Your task to perform on an android device: Add rayovac triple a to the cart on costco, then select checkout. Image 0: 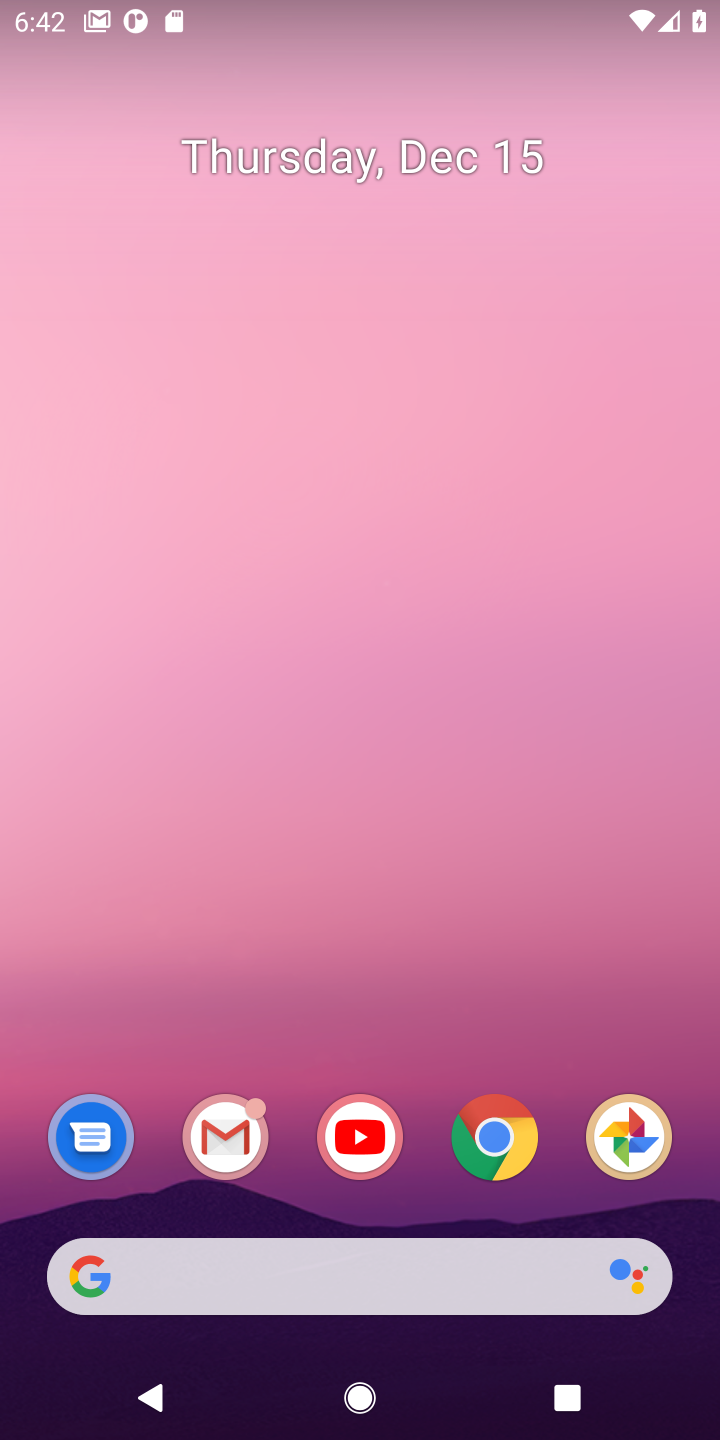
Step 0: drag from (369, 1159) to (369, 661)
Your task to perform on an android device: Add rayovac triple a to the cart on costco, then select checkout. Image 1: 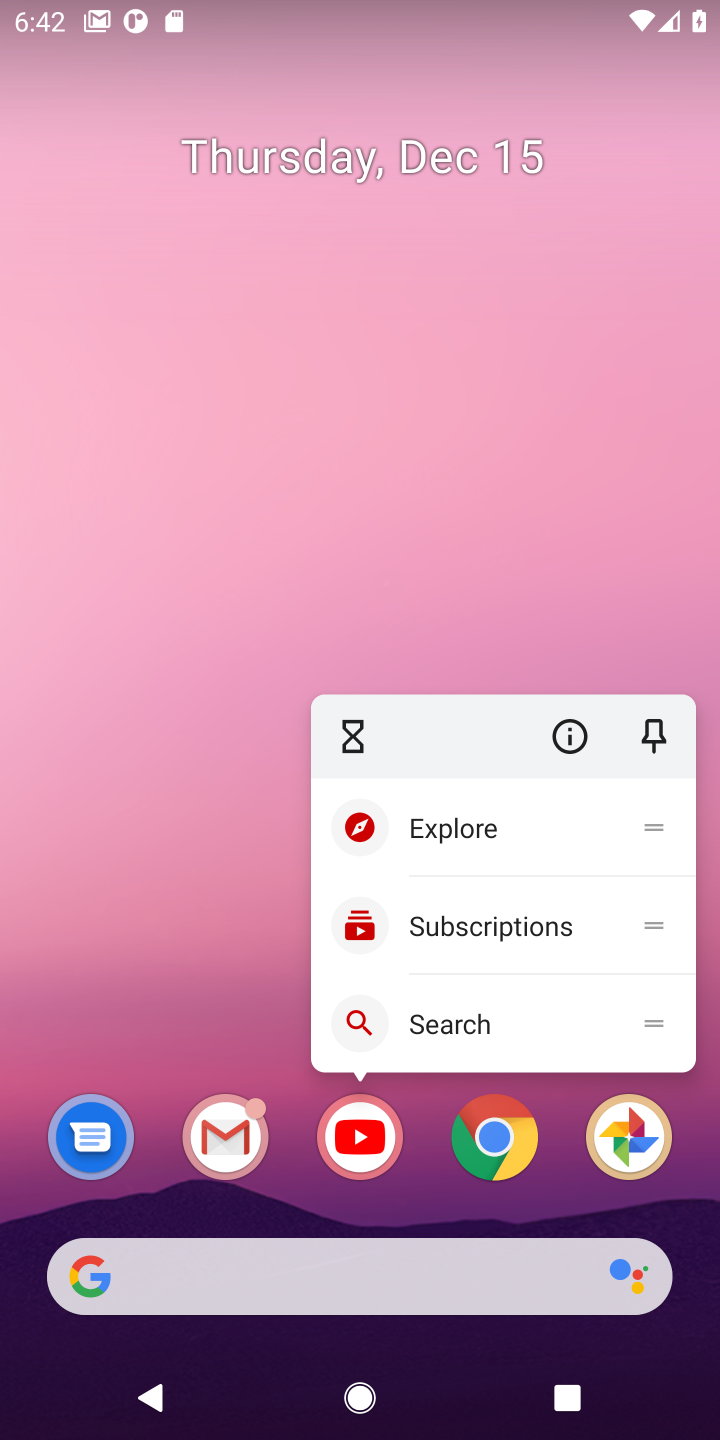
Step 1: click (125, 1013)
Your task to perform on an android device: Add rayovac triple a to the cart on costco, then select checkout. Image 2: 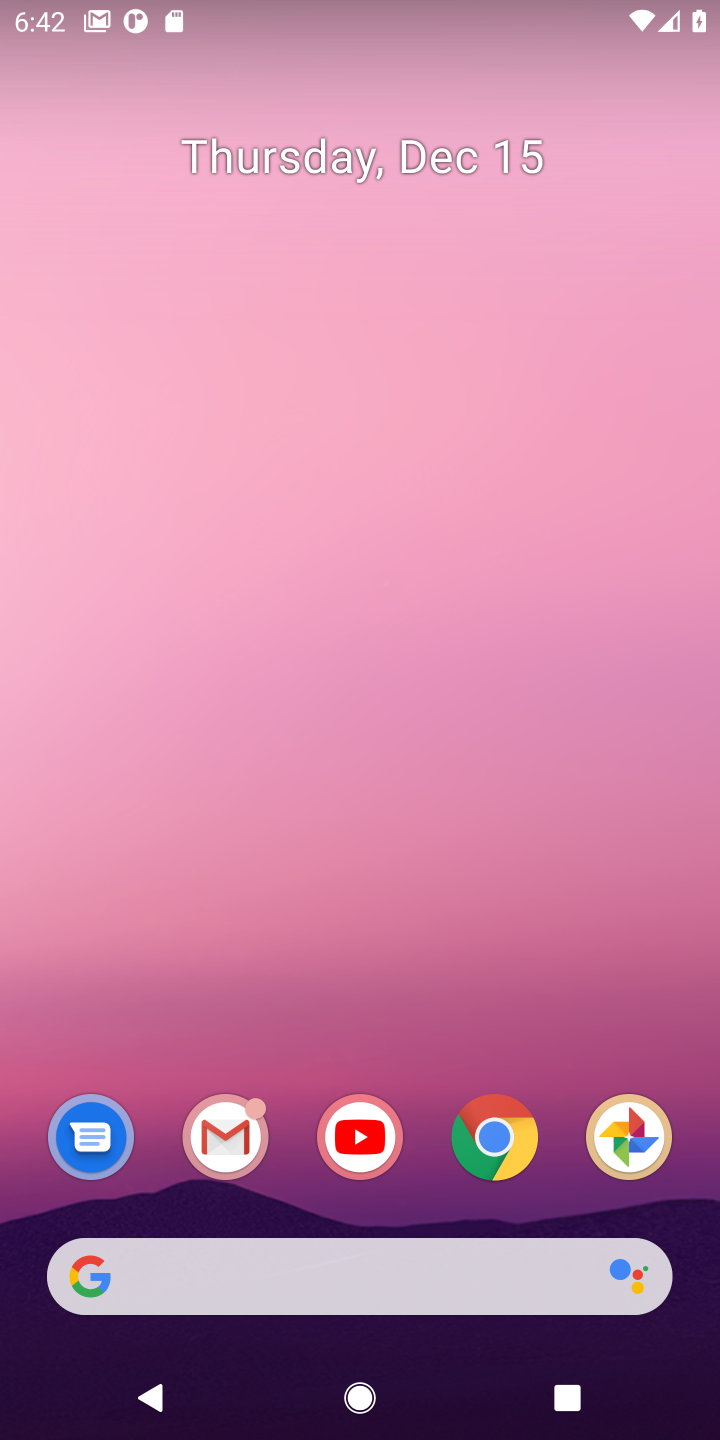
Step 2: drag from (370, 989) to (384, 387)
Your task to perform on an android device: Add rayovac triple a to the cart on costco, then select checkout. Image 3: 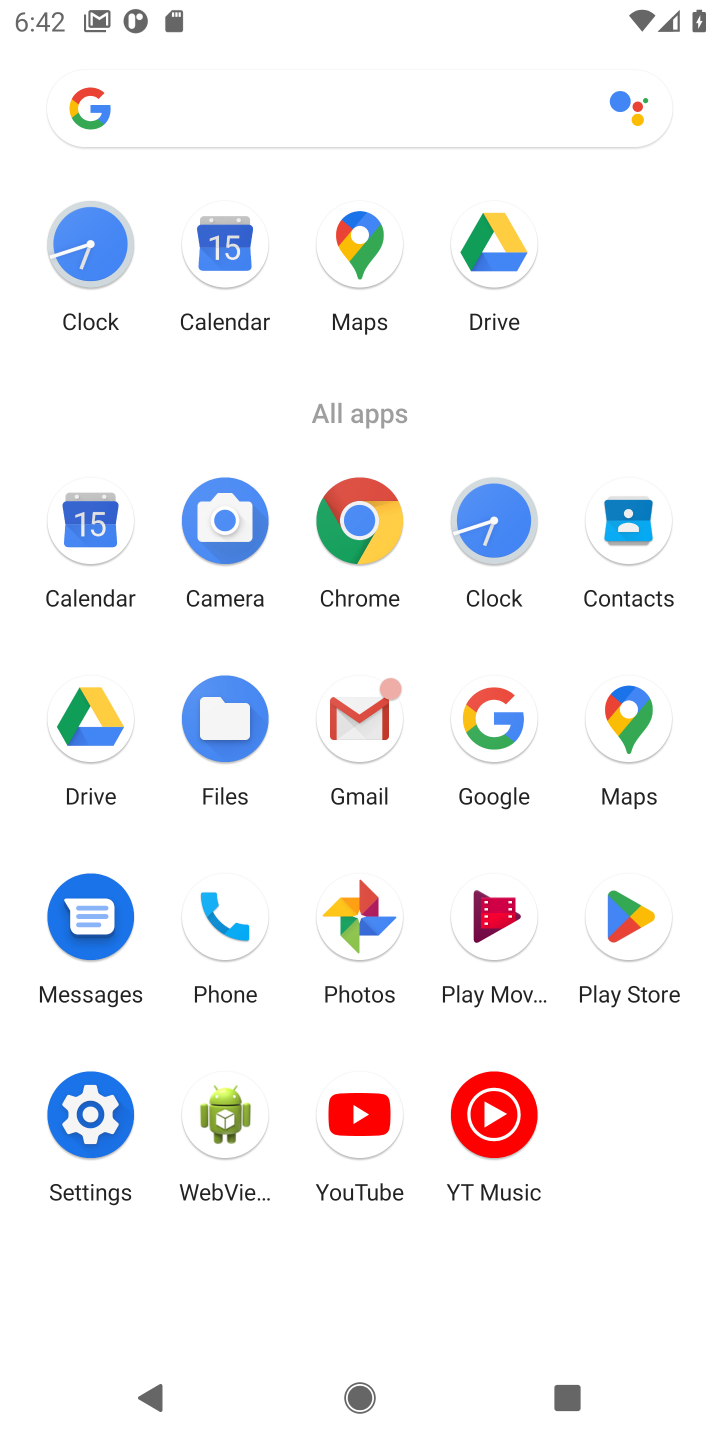
Step 3: click (504, 705)
Your task to perform on an android device: Add rayovac triple a to the cart on costco, then select checkout. Image 4: 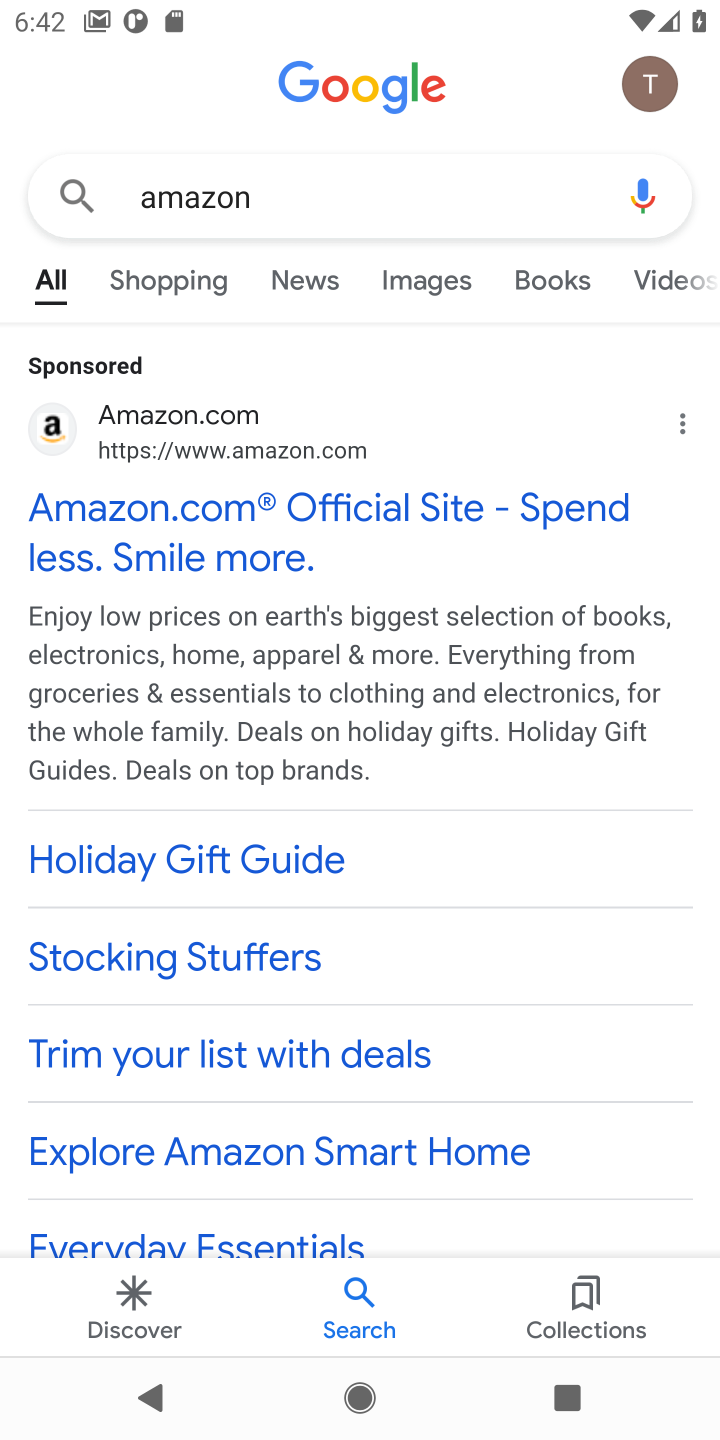
Step 4: click (200, 199)
Your task to perform on an android device: Add rayovac triple a to the cart on costco, then select checkout. Image 5: 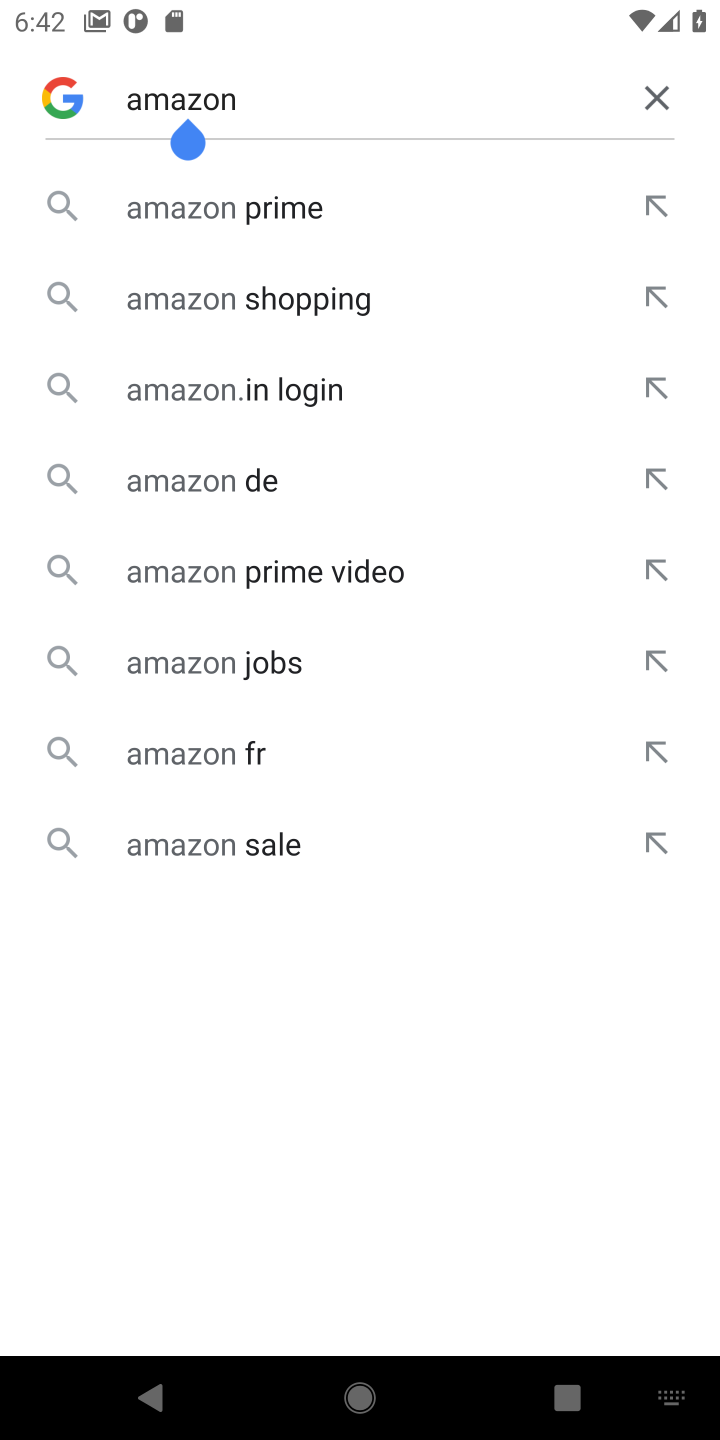
Step 5: click (657, 101)
Your task to perform on an android device: Add rayovac triple a to the cart on costco, then select checkout. Image 6: 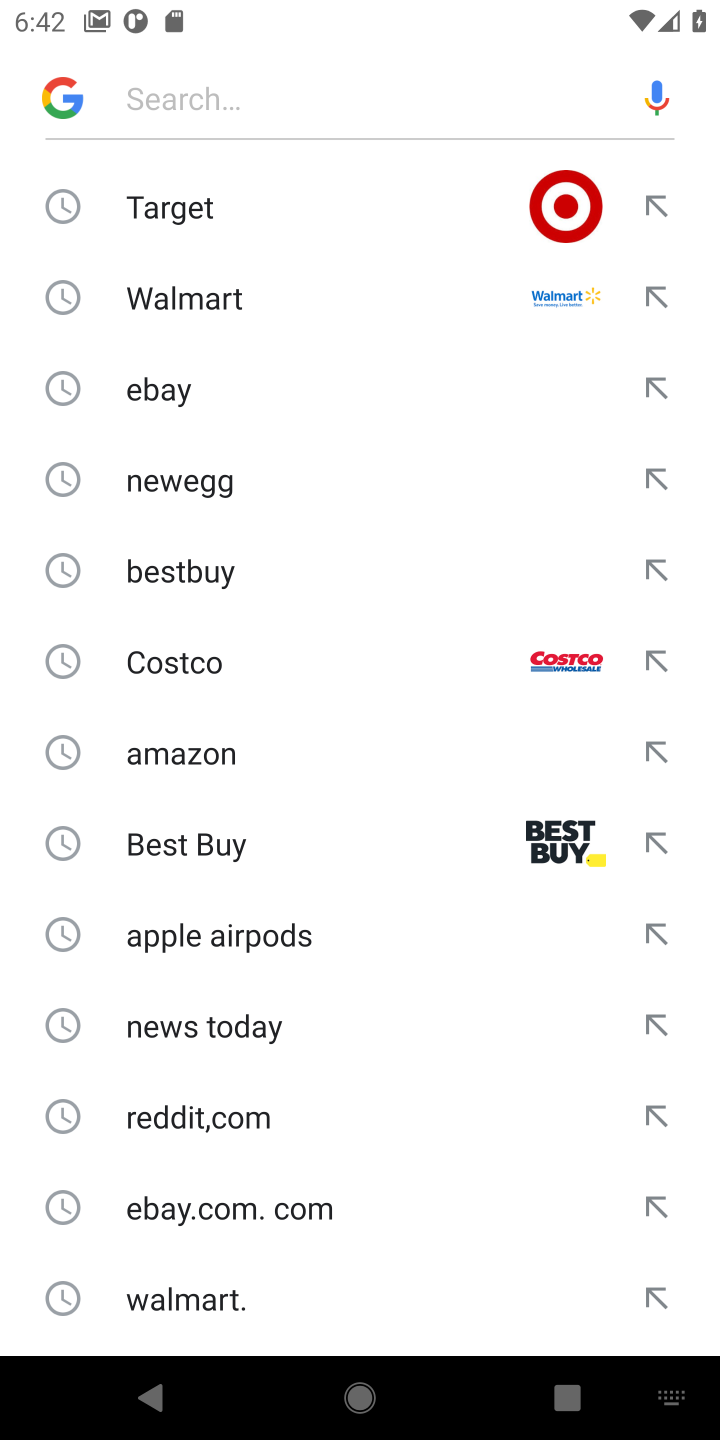
Step 6: click (185, 662)
Your task to perform on an android device: Add rayovac triple a to the cart on costco, then select checkout. Image 7: 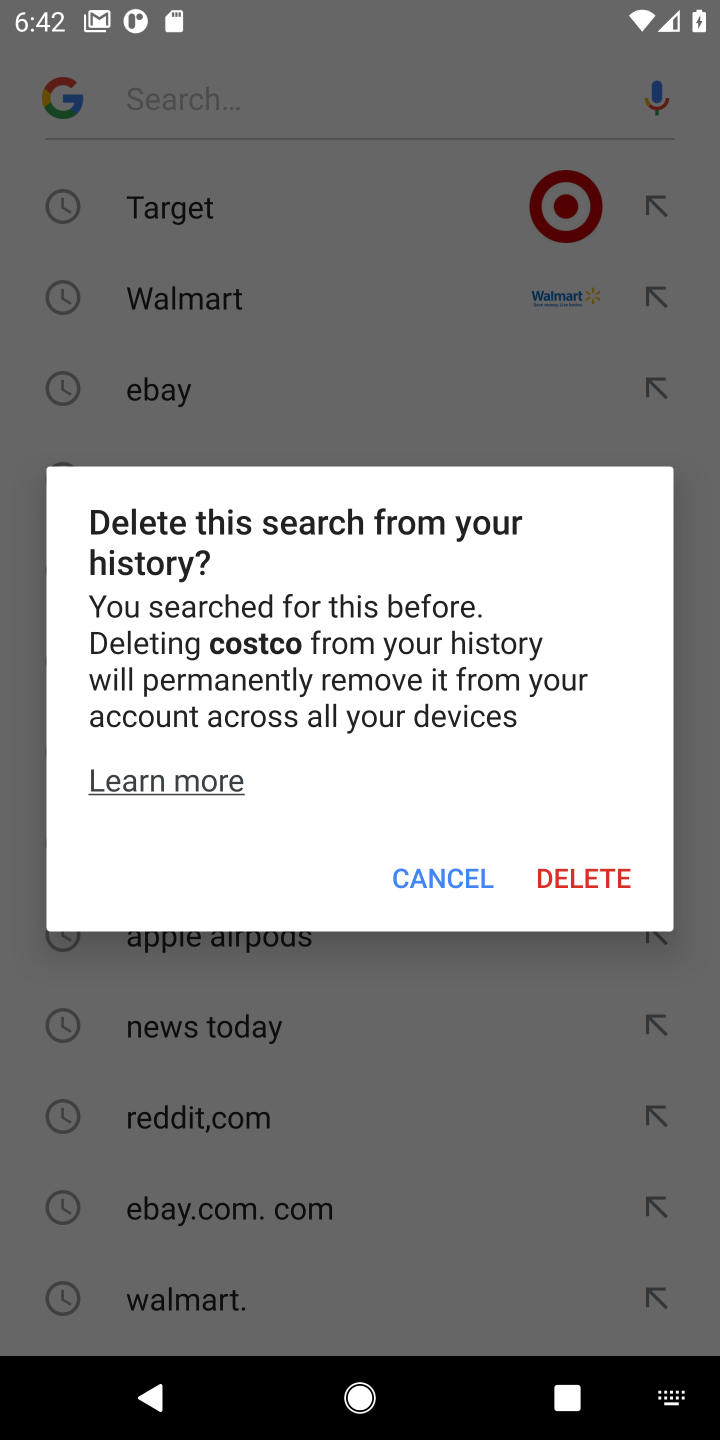
Step 7: click (434, 867)
Your task to perform on an android device: Add rayovac triple a to the cart on costco, then select checkout. Image 8: 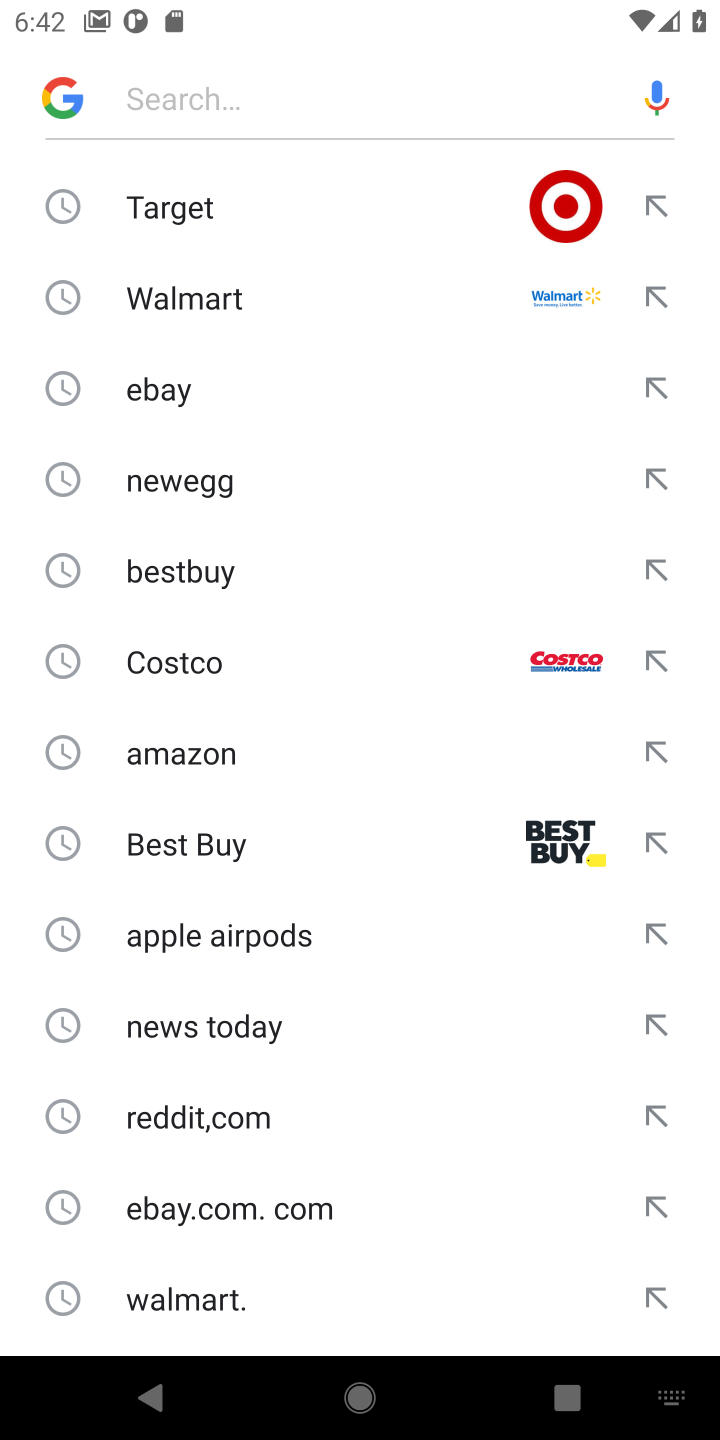
Step 8: click (604, 657)
Your task to perform on an android device: Add rayovac triple a to the cart on costco, then select checkout. Image 9: 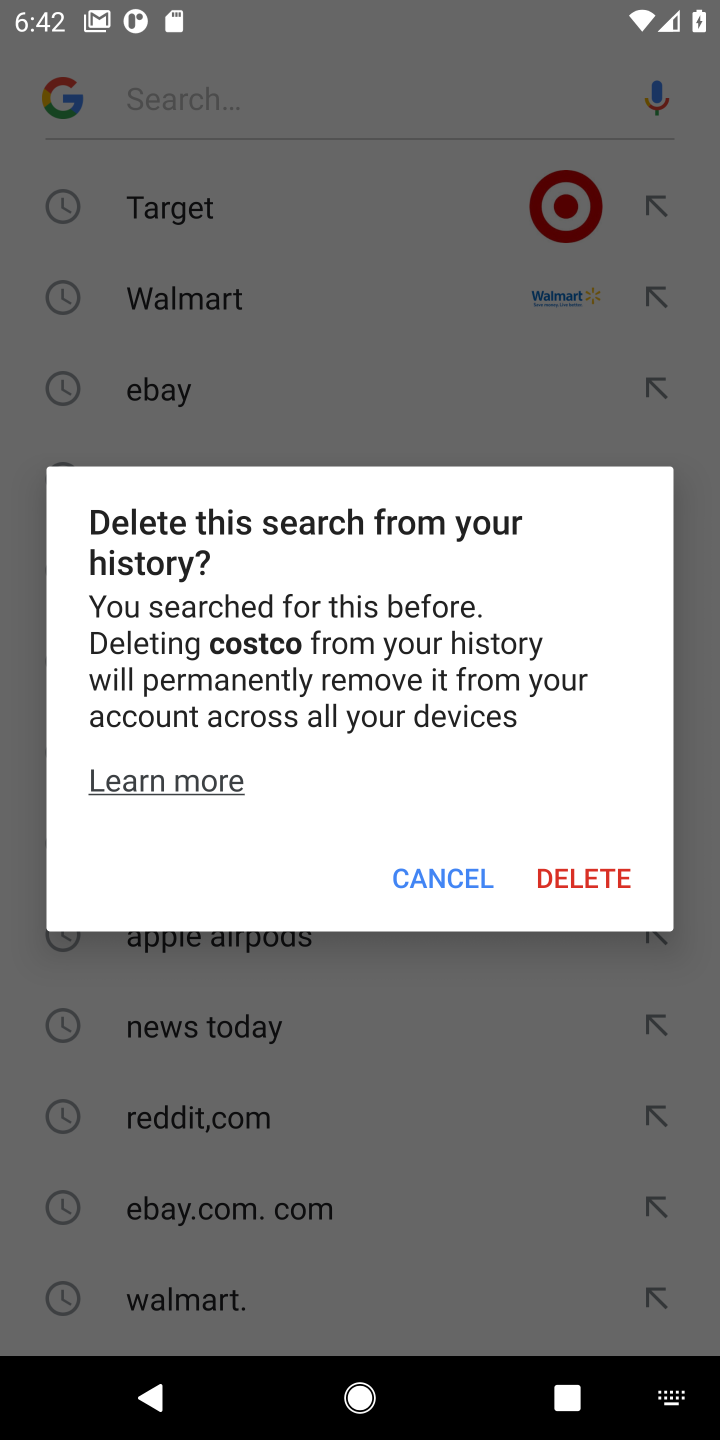
Step 9: click (449, 888)
Your task to perform on an android device: Add rayovac triple a to the cart on costco, then select checkout. Image 10: 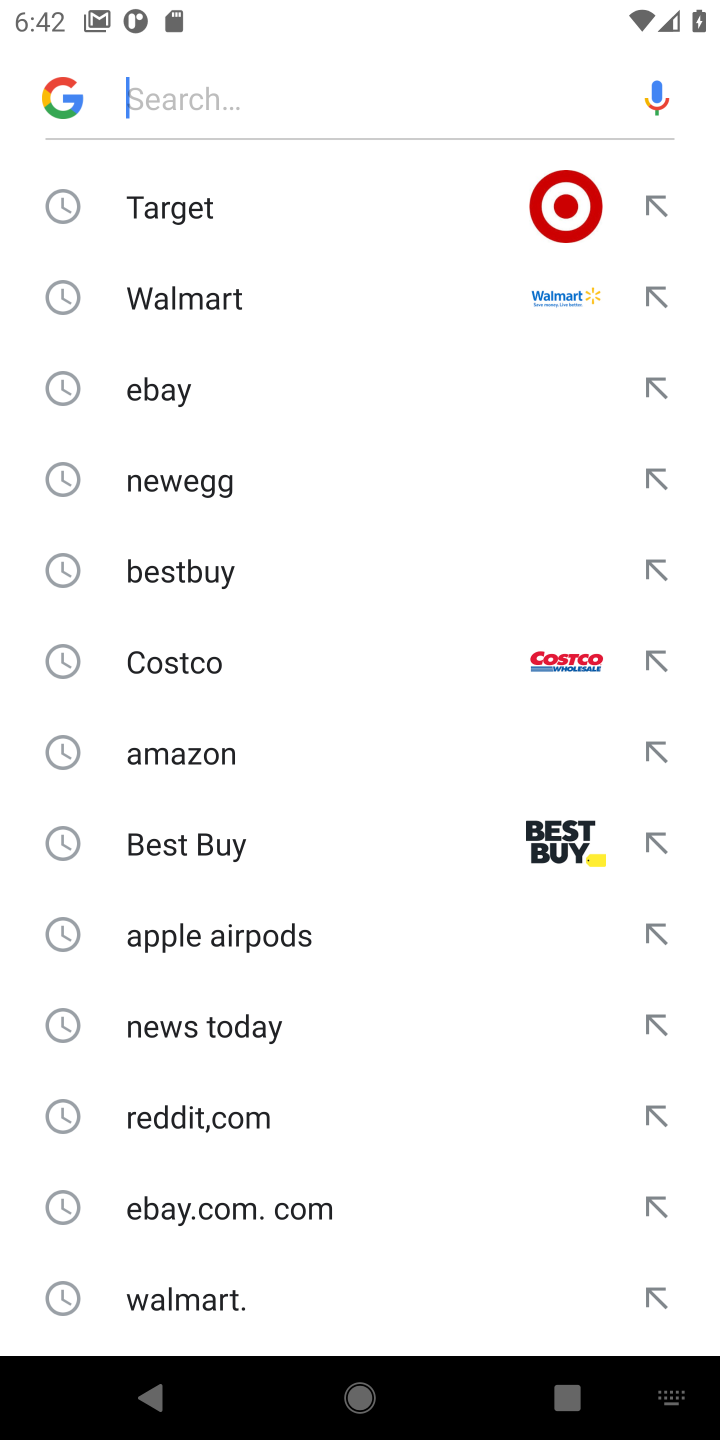
Step 10: click (663, 671)
Your task to perform on an android device: Add rayovac triple a to the cart on costco, then select checkout. Image 11: 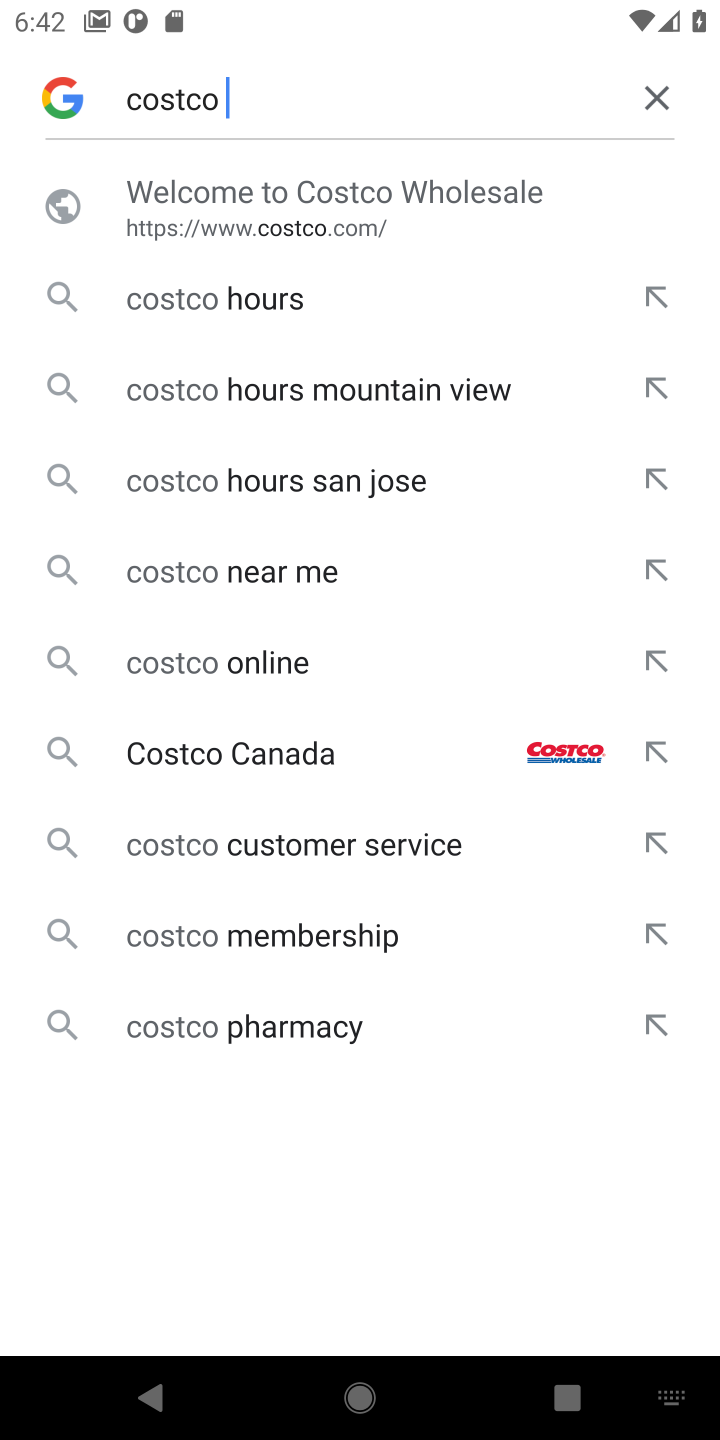
Step 11: click (330, 197)
Your task to perform on an android device: Add rayovac triple a to the cart on costco, then select checkout. Image 12: 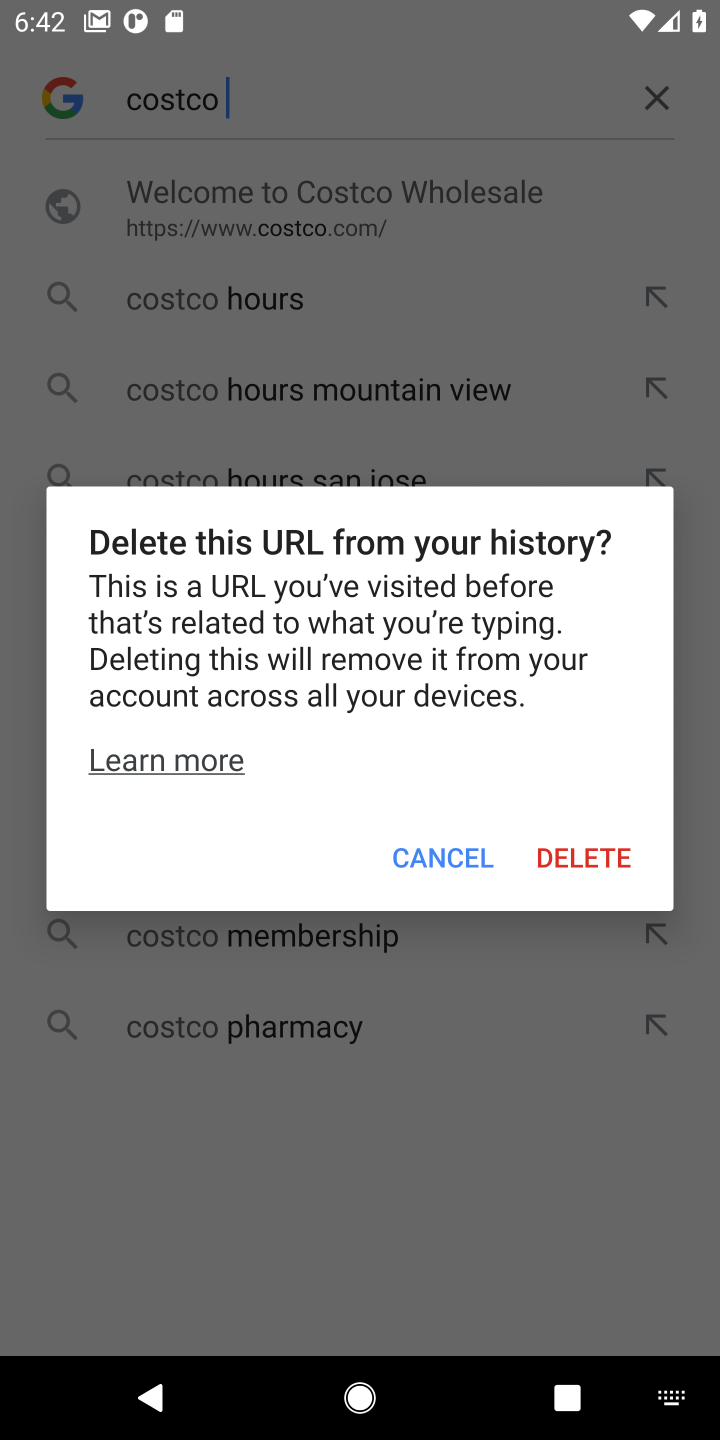
Step 12: click (422, 848)
Your task to perform on an android device: Add rayovac triple a to the cart on costco, then select checkout. Image 13: 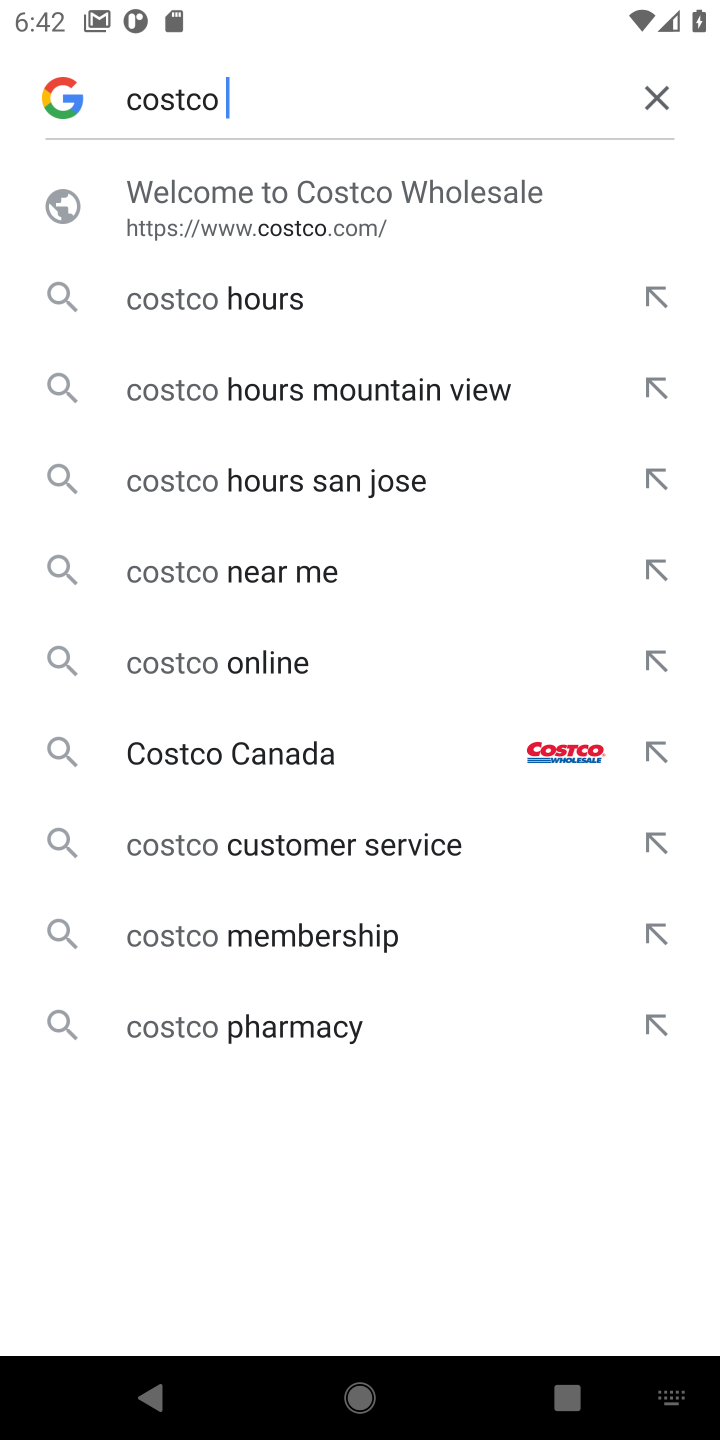
Step 13: click (215, 204)
Your task to perform on an android device: Add rayovac triple a to the cart on costco, then select checkout. Image 14: 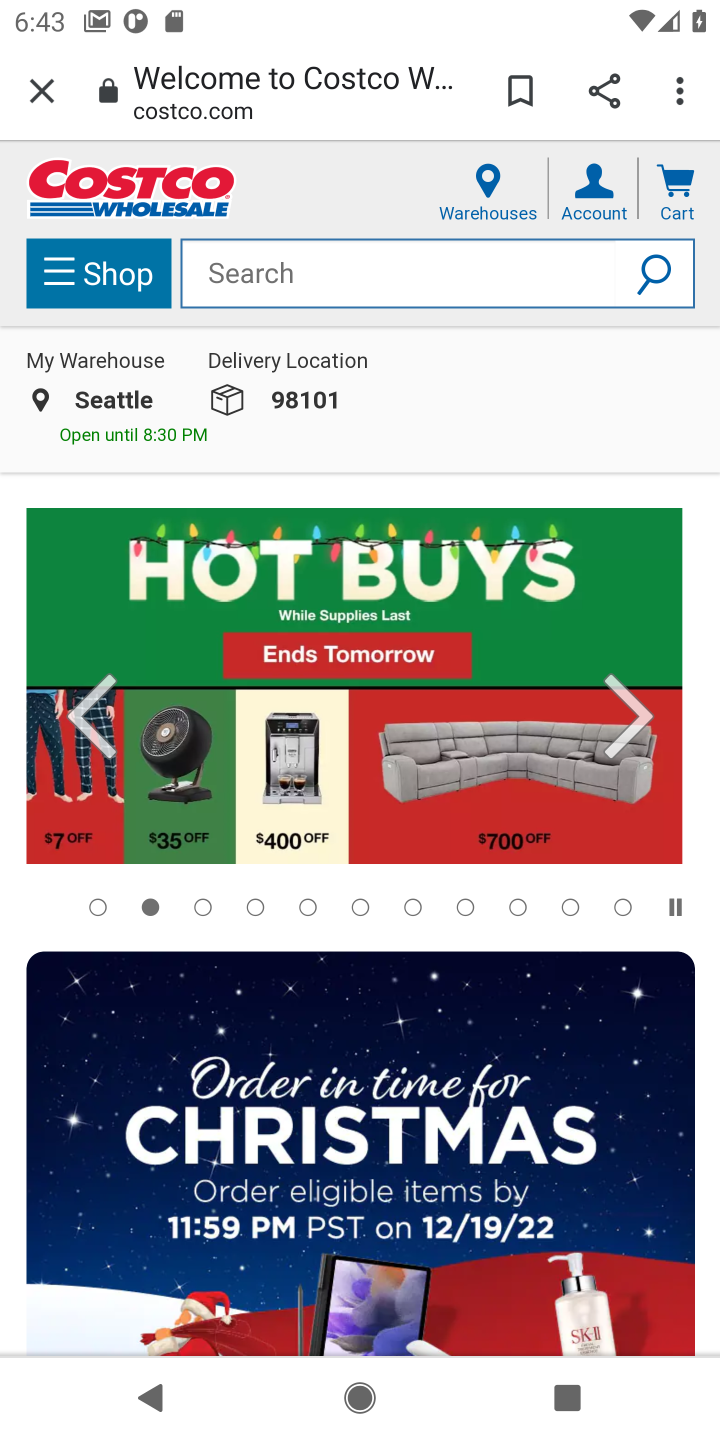
Step 14: click (278, 268)
Your task to perform on an android device: Add rayovac triple a to the cart on costco, then select checkout. Image 15: 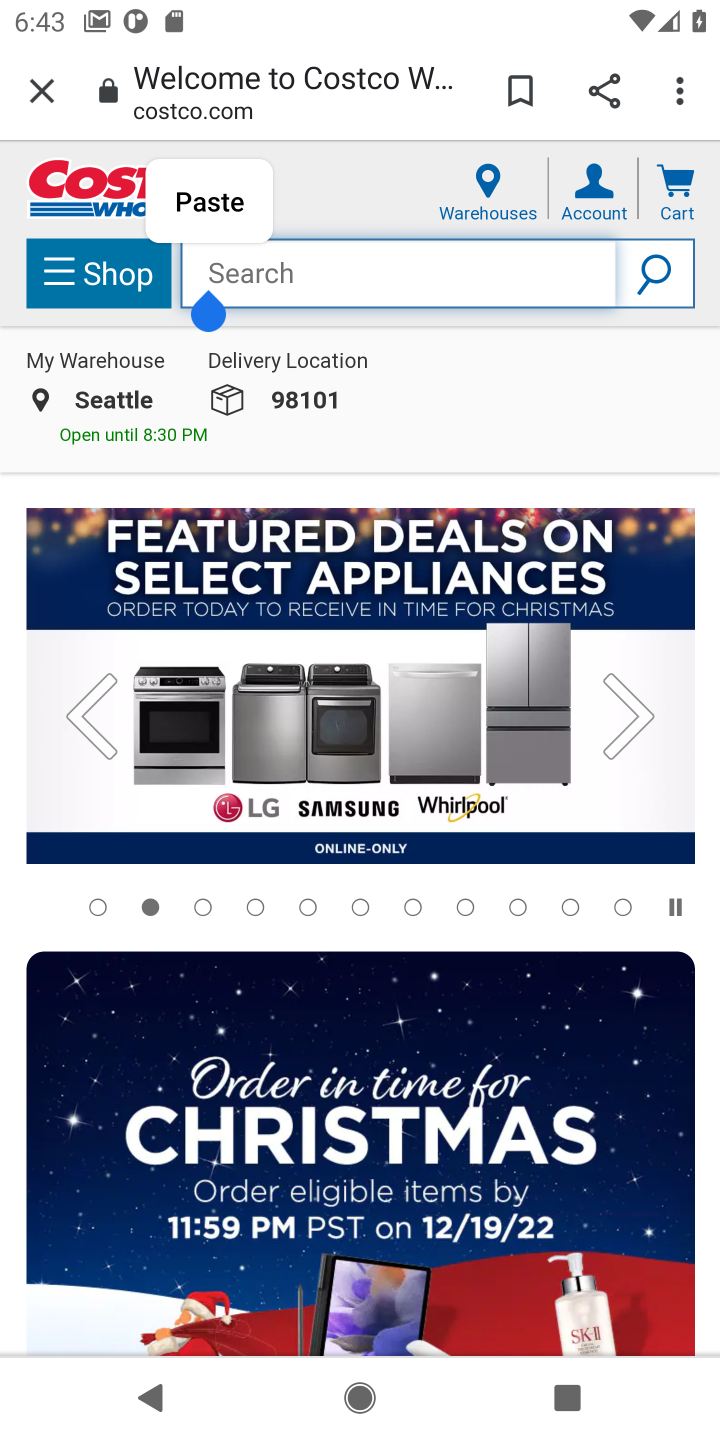
Step 15: type "rayovac triple a"
Your task to perform on an android device: Add rayovac triple a to the cart on costco, then select checkout. Image 16: 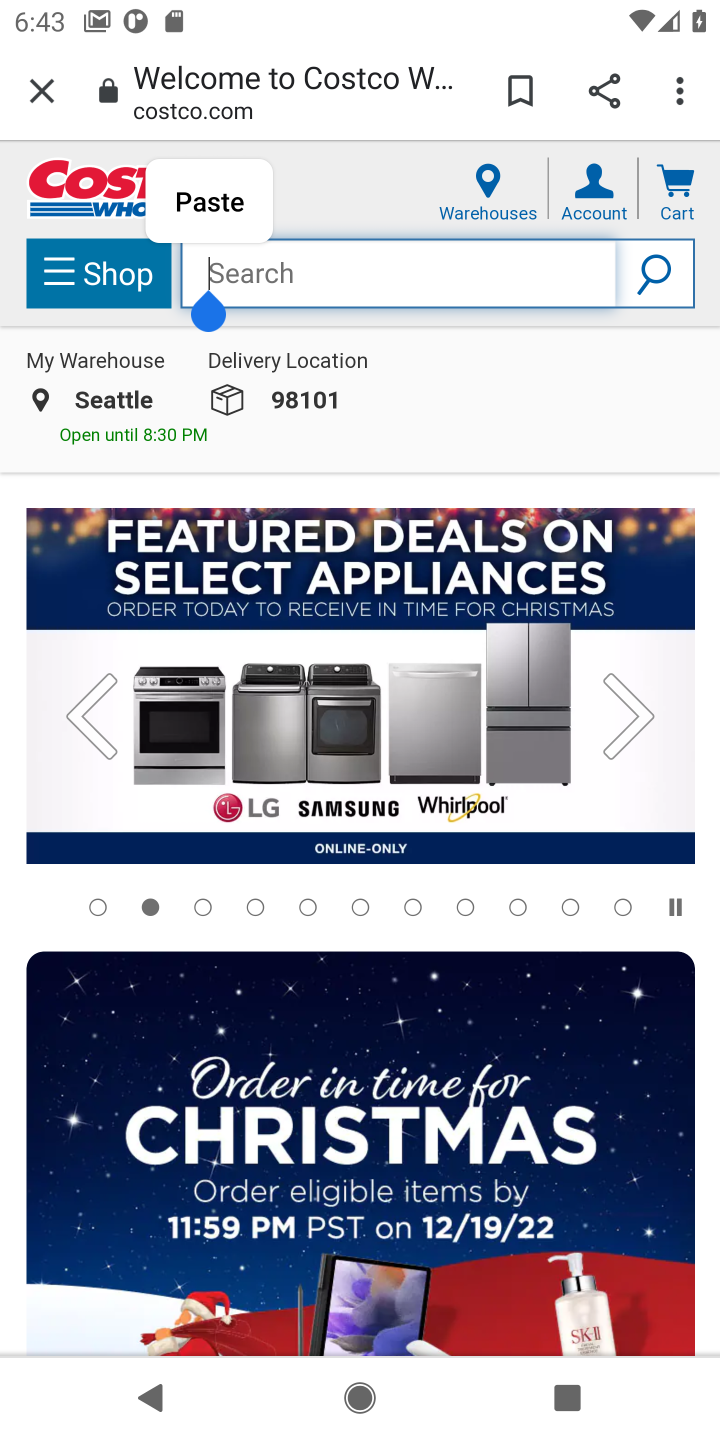
Step 16: click (660, 277)
Your task to perform on an android device: Add rayovac triple a to the cart on costco, then select checkout. Image 17: 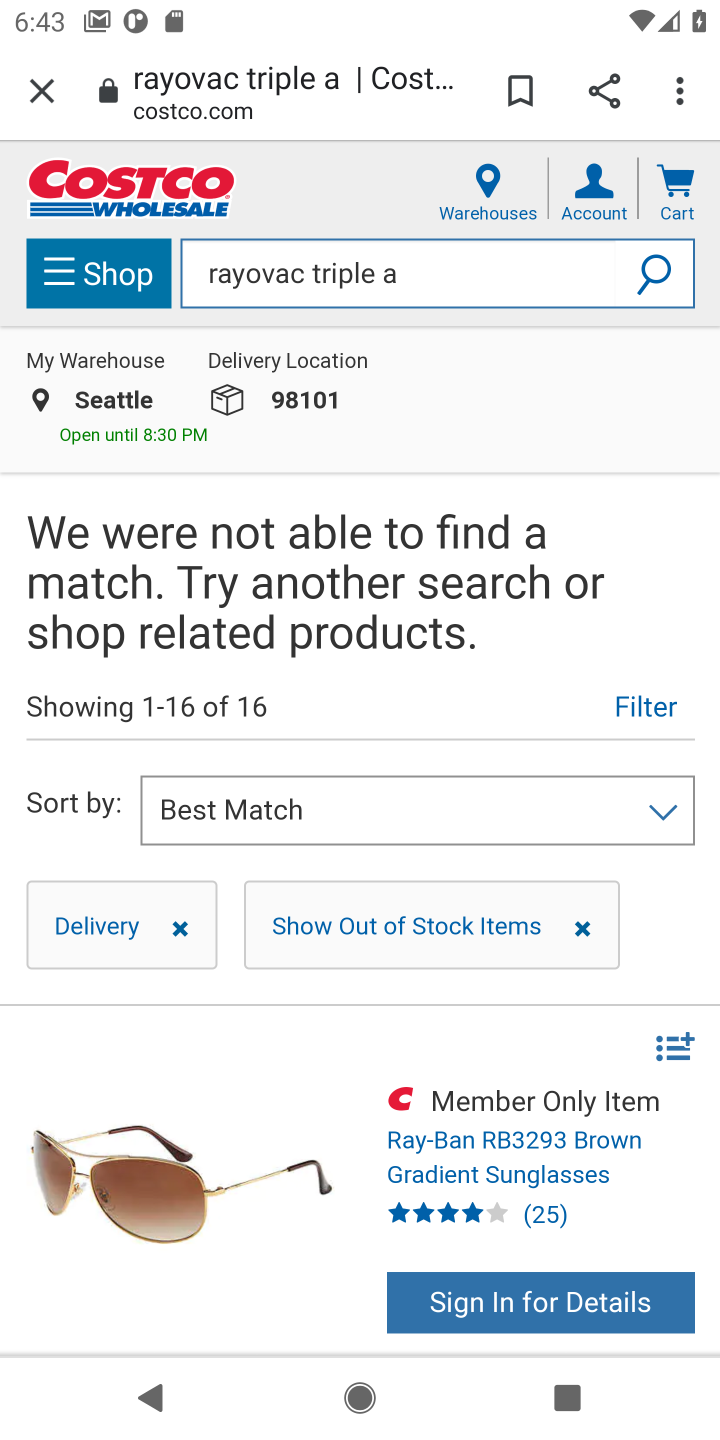
Step 17: task complete